Your task to perform on an android device: turn on wifi Image 0: 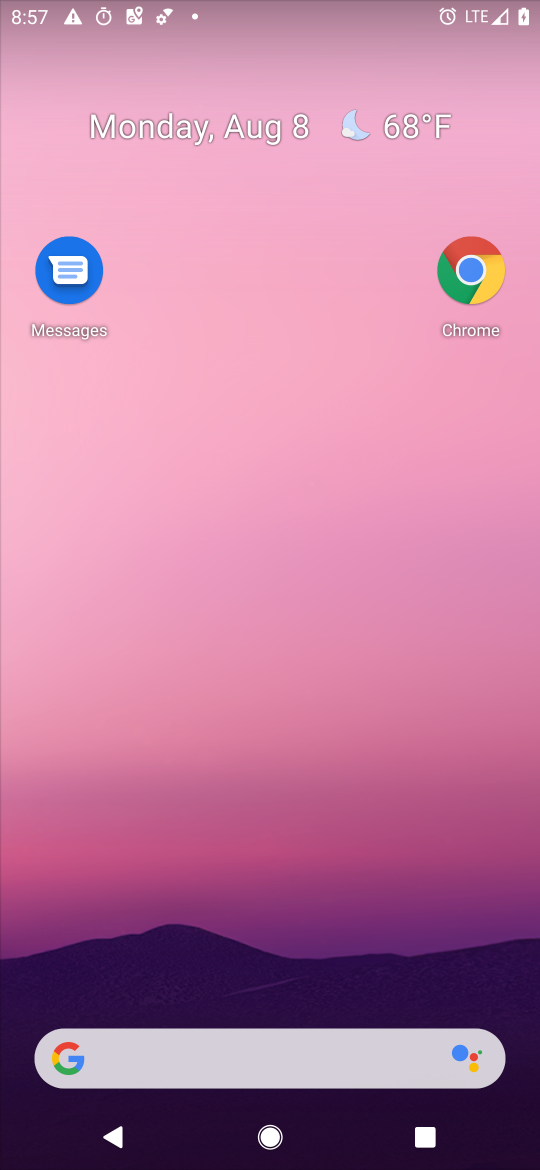
Step 0: click (357, 160)
Your task to perform on an android device: turn on wifi Image 1: 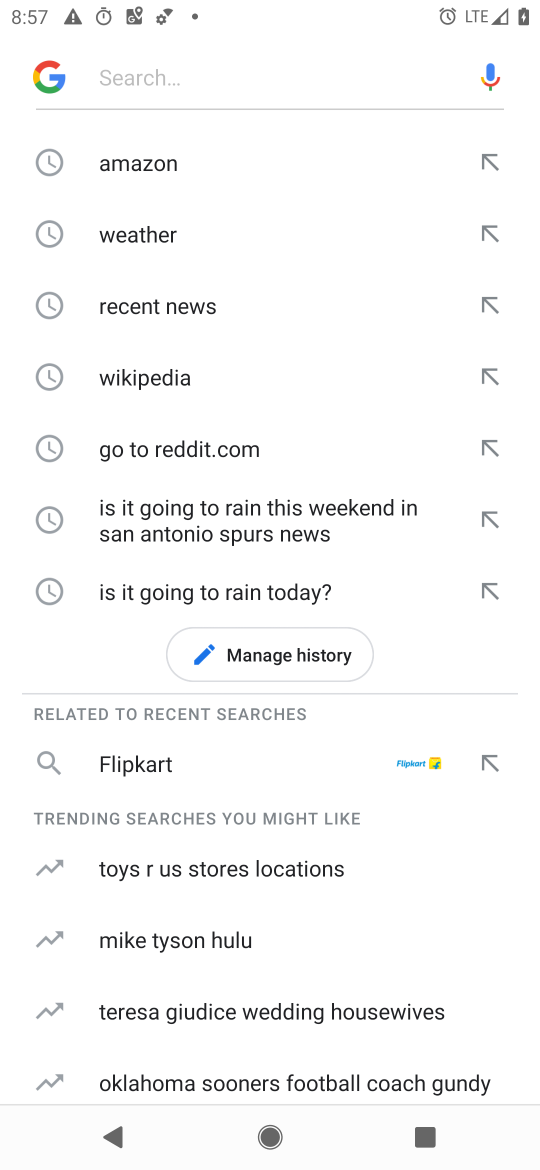
Step 1: press home button
Your task to perform on an android device: turn on wifi Image 2: 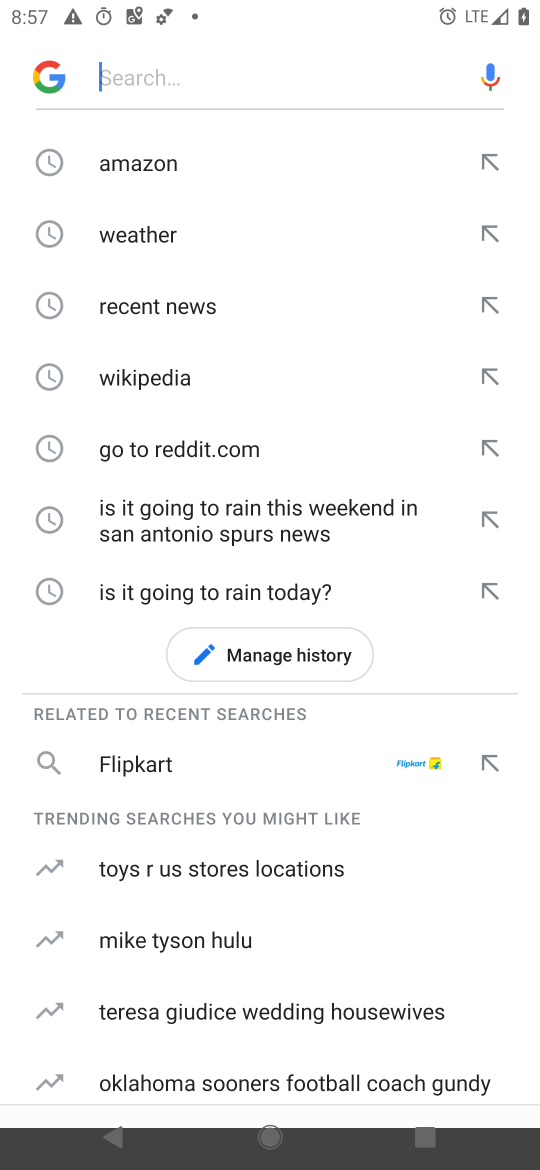
Step 2: drag from (282, 979) to (435, 25)
Your task to perform on an android device: turn on wifi Image 3: 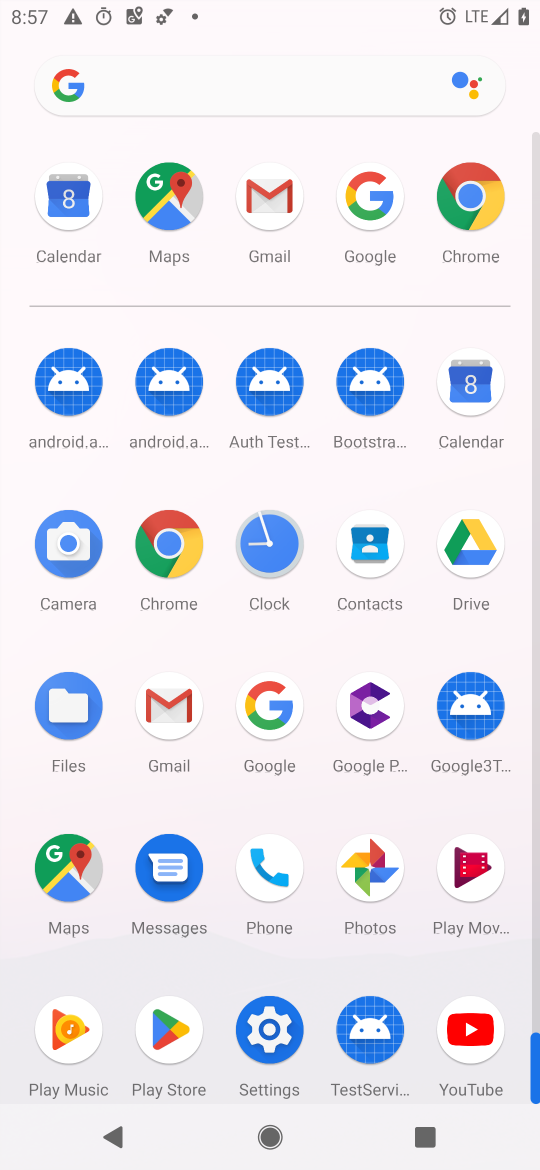
Step 3: click (279, 1045)
Your task to perform on an android device: turn on wifi Image 4: 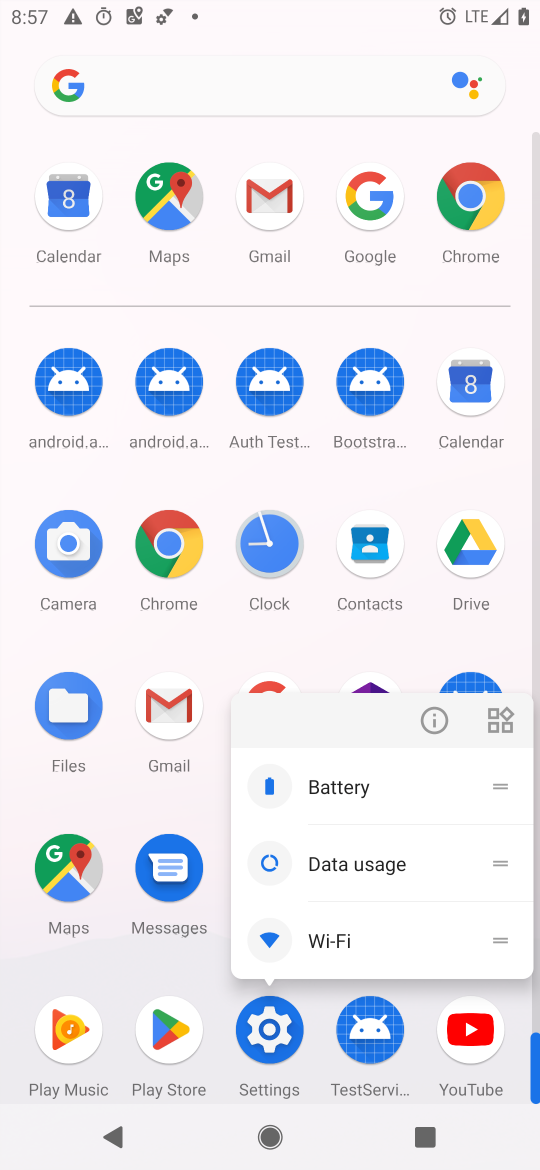
Step 4: click (432, 722)
Your task to perform on an android device: turn on wifi Image 5: 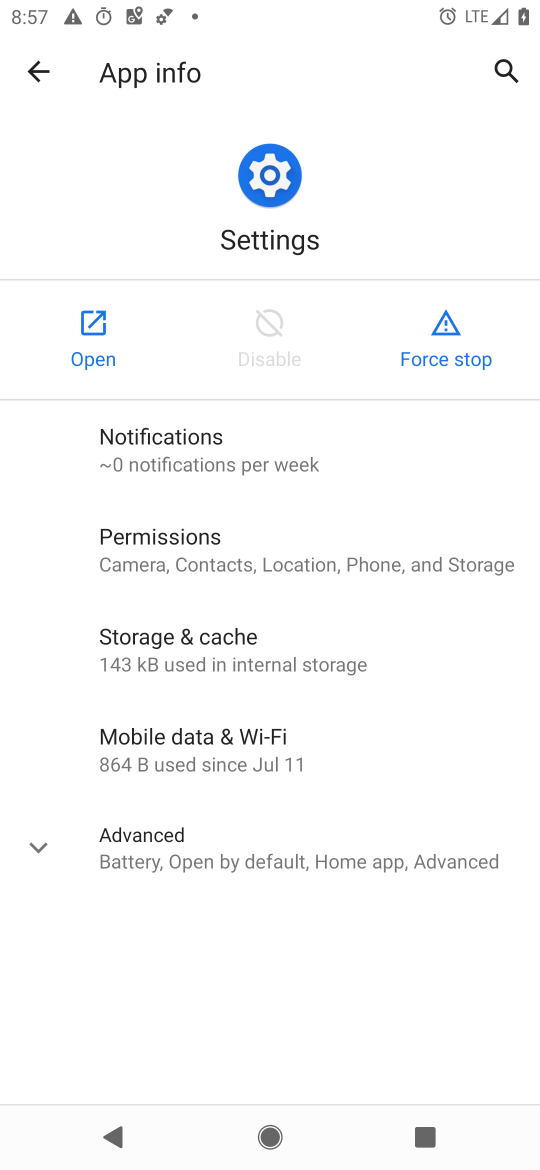
Step 5: click (112, 349)
Your task to perform on an android device: turn on wifi Image 6: 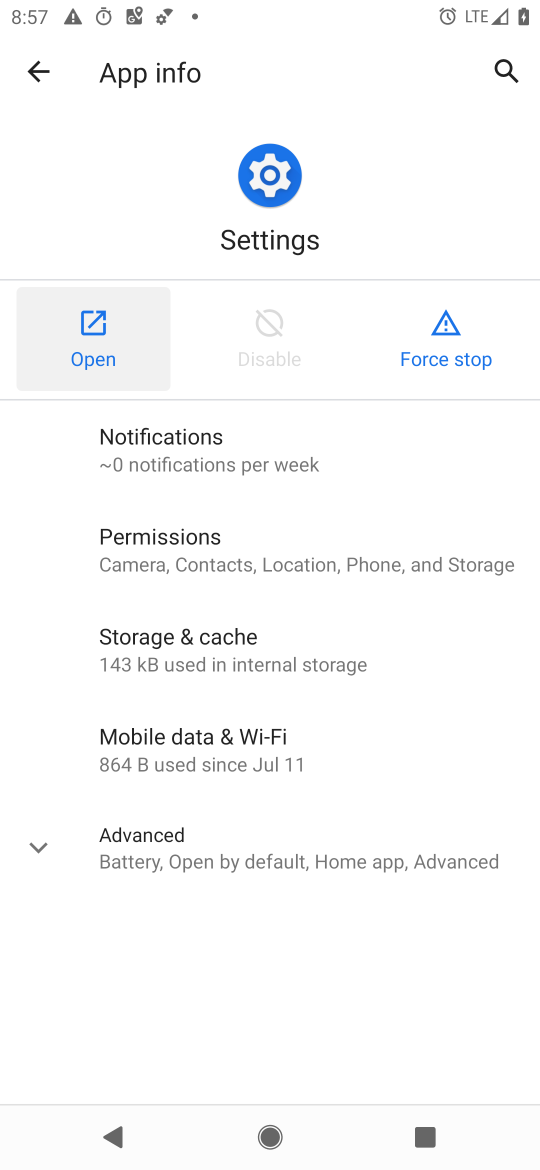
Step 6: click (112, 349)
Your task to perform on an android device: turn on wifi Image 7: 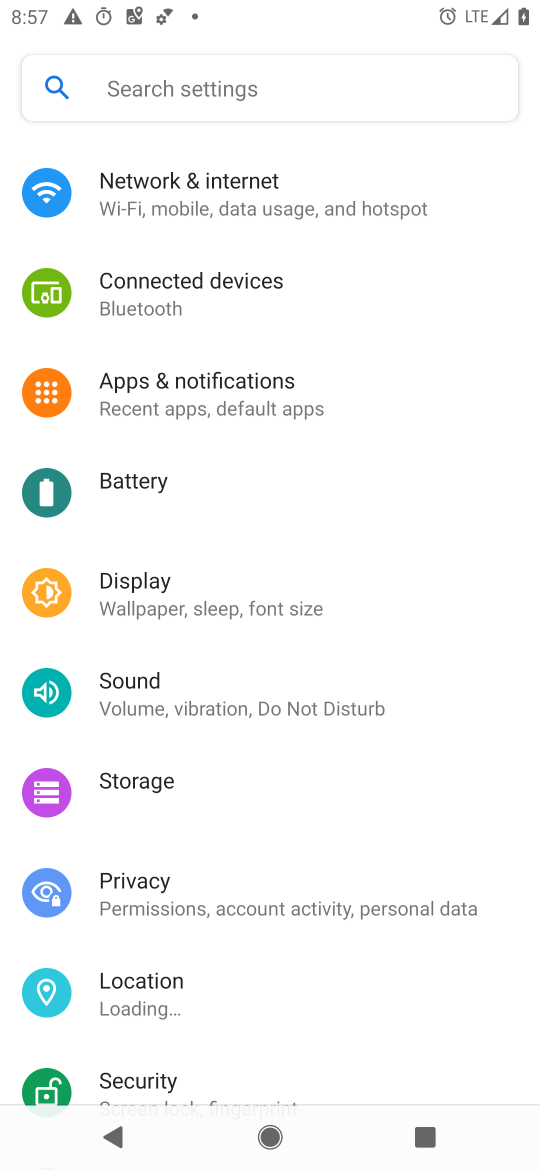
Step 7: click (71, 327)
Your task to perform on an android device: turn on wifi Image 8: 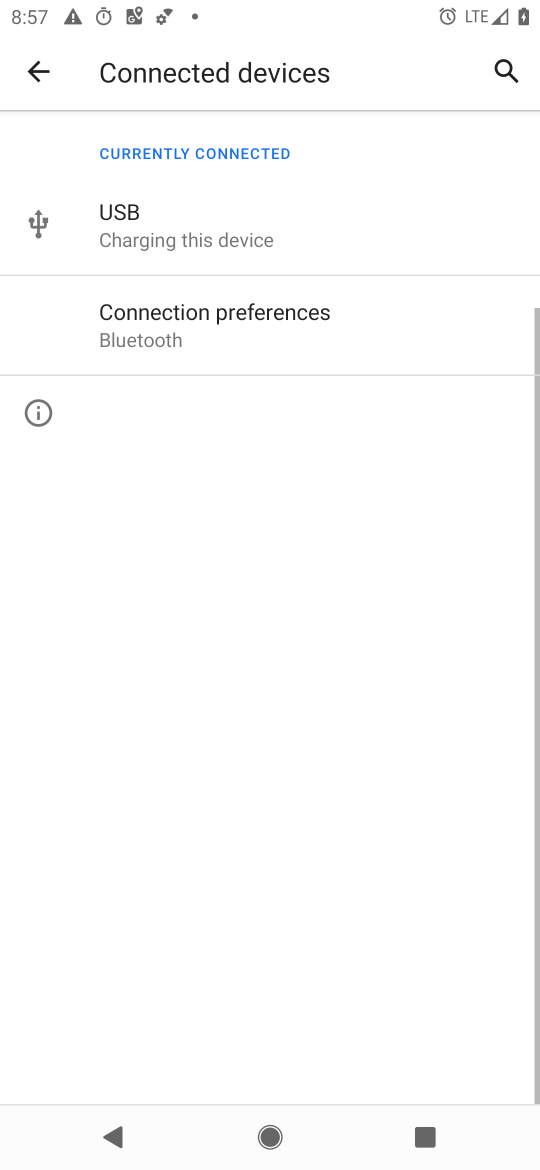
Step 8: drag from (193, 347) to (281, 851)
Your task to perform on an android device: turn on wifi Image 9: 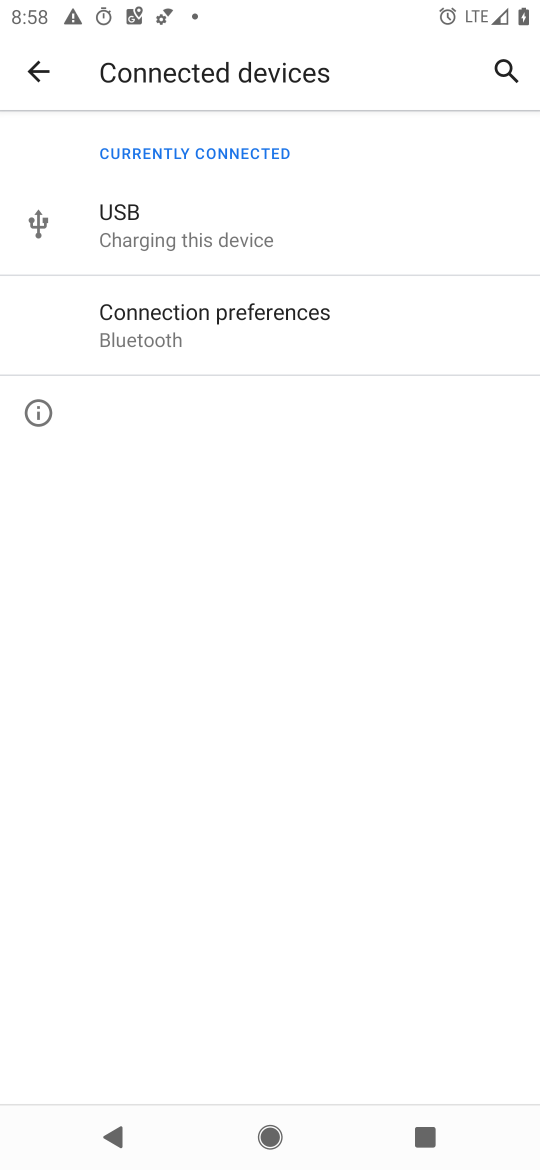
Step 9: click (41, 60)
Your task to perform on an android device: turn on wifi Image 10: 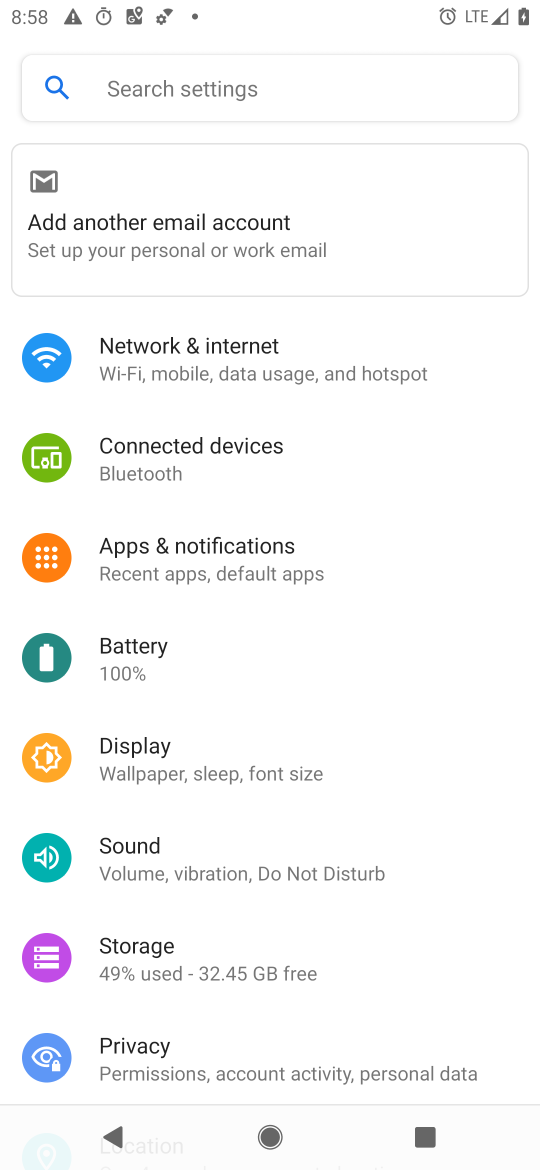
Step 10: click (135, 365)
Your task to perform on an android device: turn on wifi Image 11: 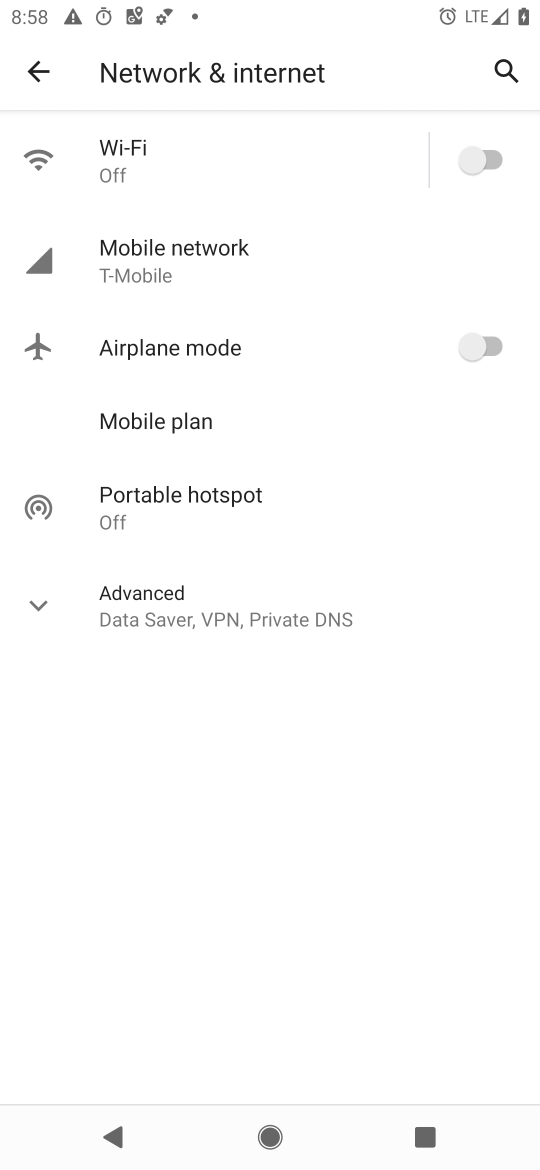
Step 11: click (168, 186)
Your task to perform on an android device: turn on wifi Image 12: 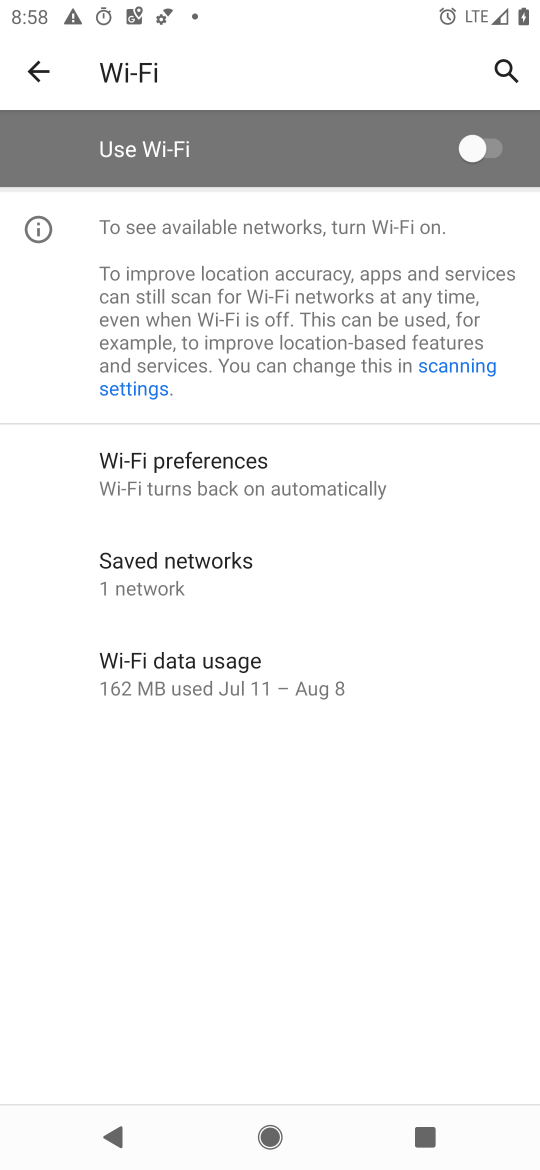
Step 12: click (448, 153)
Your task to perform on an android device: turn on wifi Image 13: 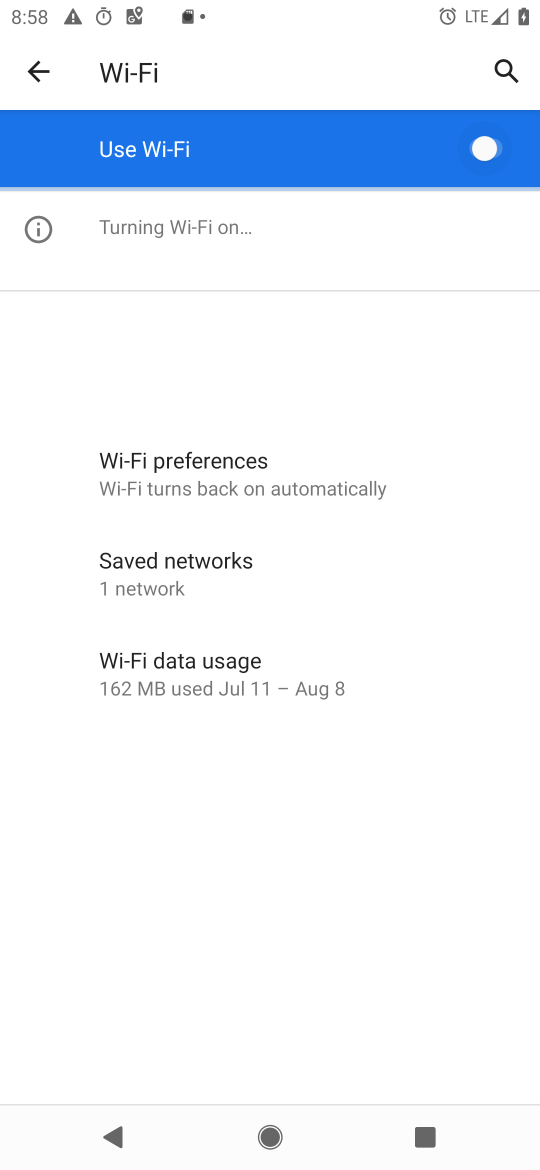
Step 13: task complete